Your task to perform on an android device: refresh tabs in the chrome app Image 0: 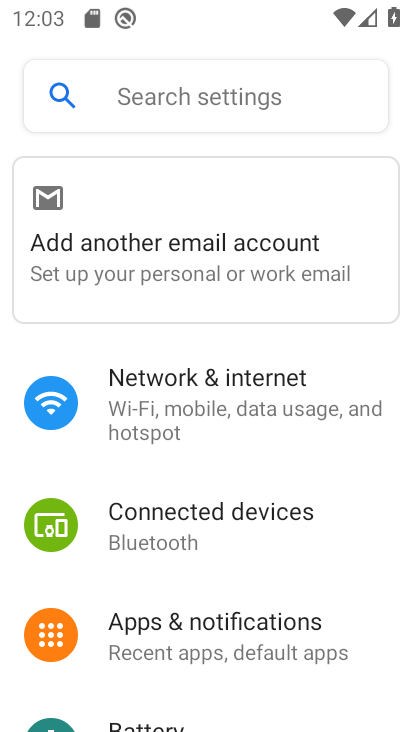
Step 0: press home button
Your task to perform on an android device: refresh tabs in the chrome app Image 1: 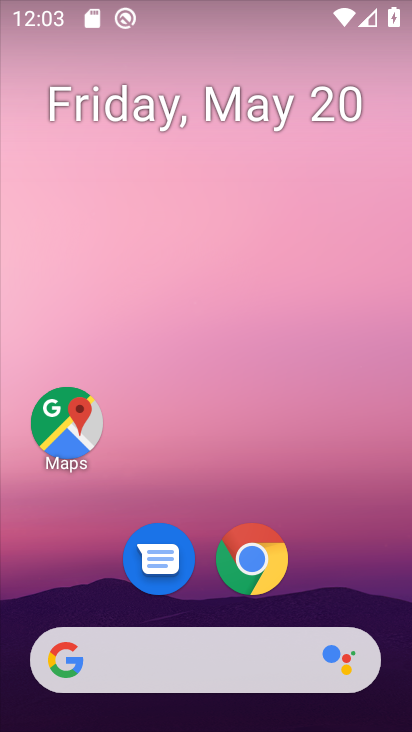
Step 1: click (271, 555)
Your task to perform on an android device: refresh tabs in the chrome app Image 2: 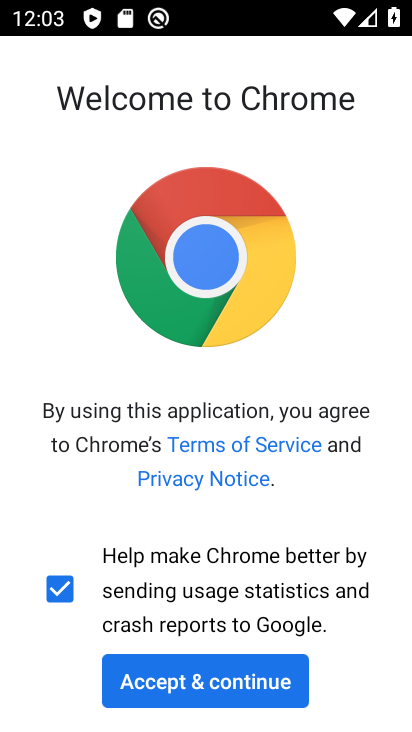
Step 2: click (205, 701)
Your task to perform on an android device: refresh tabs in the chrome app Image 3: 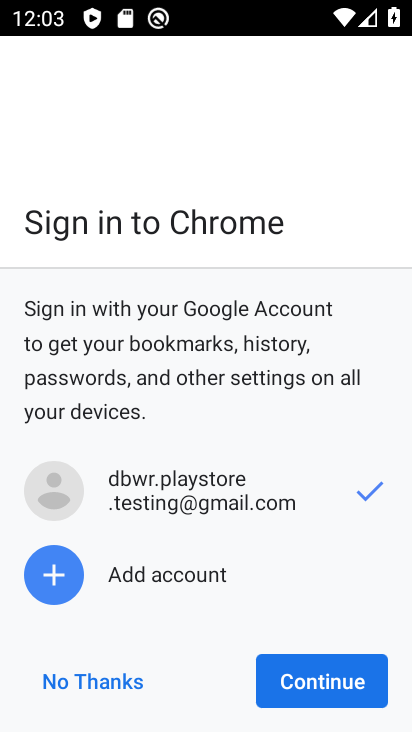
Step 3: click (289, 691)
Your task to perform on an android device: refresh tabs in the chrome app Image 4: 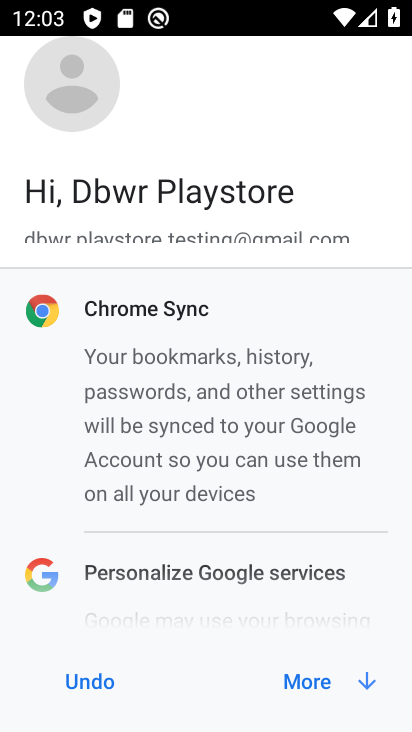
Step 4: click (289, 691)
Your task to perform on an android device: refresh tabs in the chrome app Image 5: 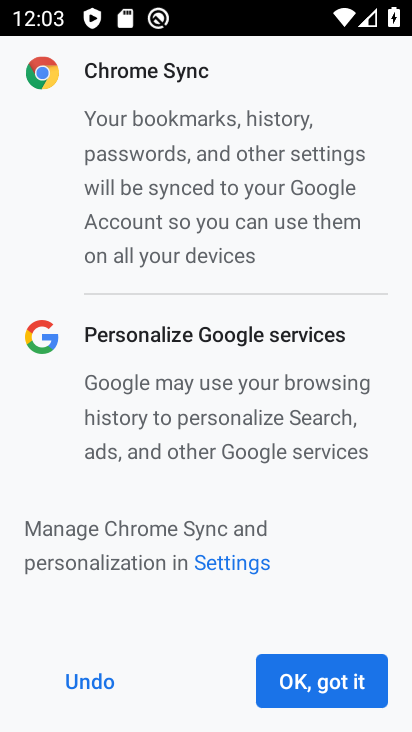
Step 5: click (289, 691)
Your task to perform on an android device: refresh tabs in the chrome app Image 6: 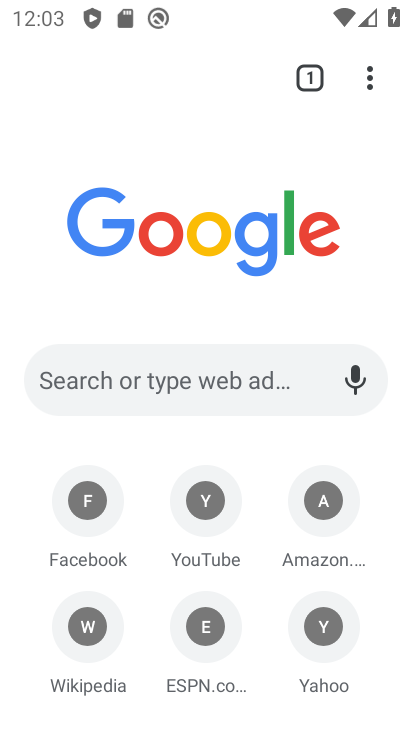
Step 6: click (364, 84)
Your task to perform on an android device: refresh tabs in the chrome app Image 7: 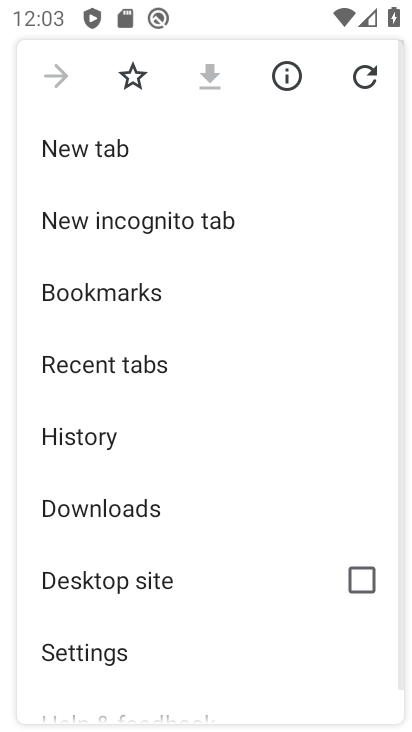
Step 7: click (364, 84)
Your task to perform on an android device: refresh tabs in the chrome app Image 8: 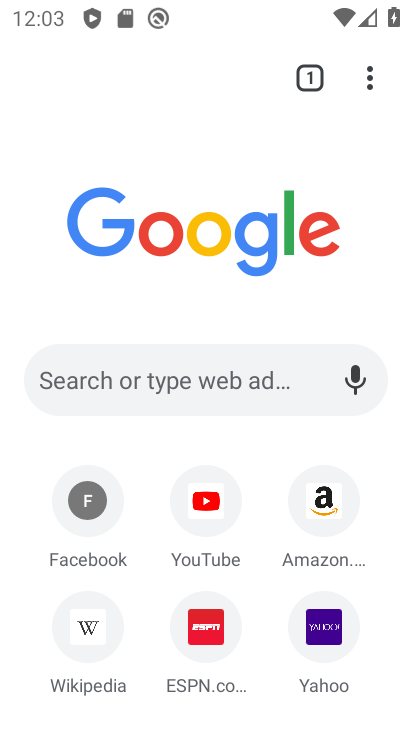
Step 8: task complete